Your task to perform on an android device: turn on location history Image 0: 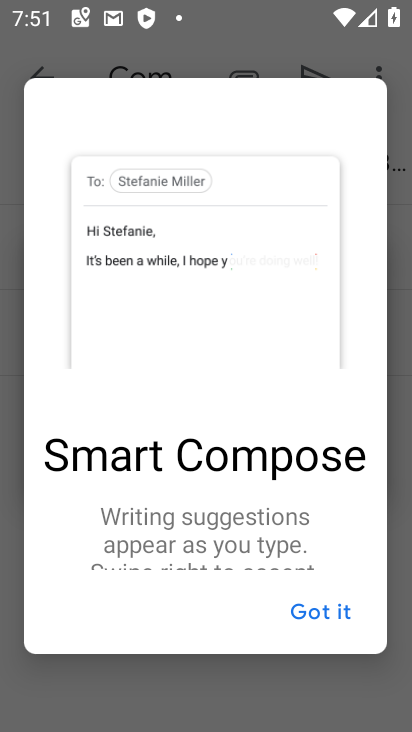
Step 0: press home button
Your task to perform on an android device: turn on location history Image 1: 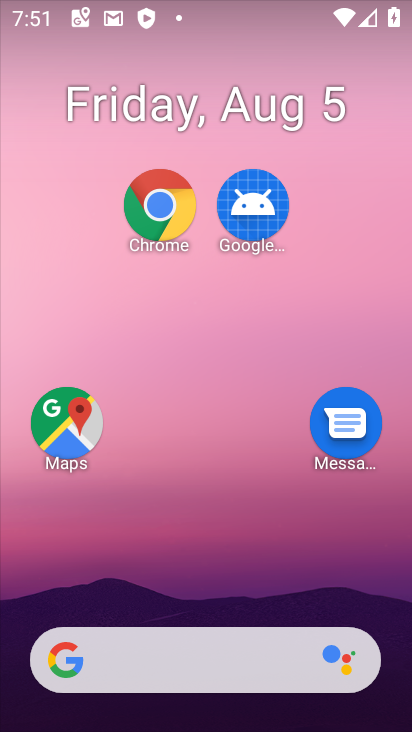
Step 1: drag from (263, 543) to (93, 6)
Your task to perform on an android device: turn on location history Image 2: 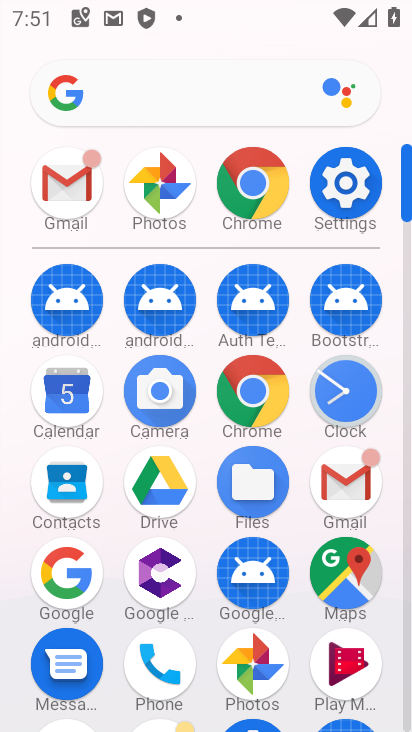
Step 2: click (328, 190)
Your task to perform on an android device: turn on location history Image 3: 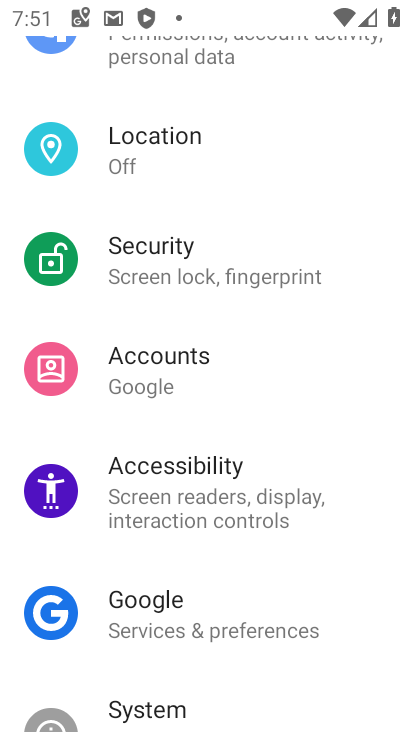
Step 3: click (107, 173)
Your task to perform on an android device: turn on location history Image 4: 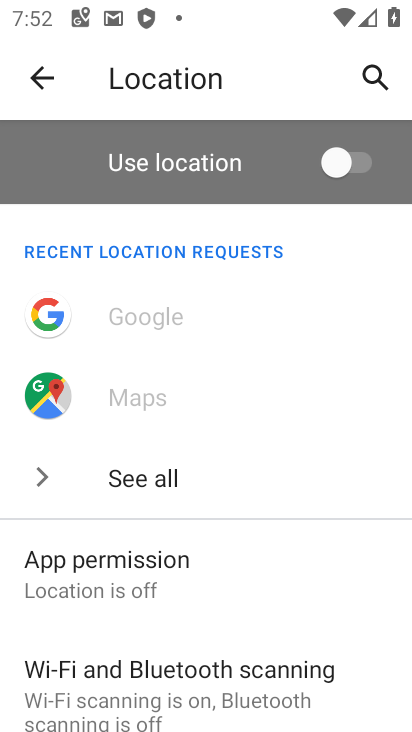
Step 4: drag from (119, 627) to (114, 189)
Your task to perform on an android device: turn on location history Image 5: 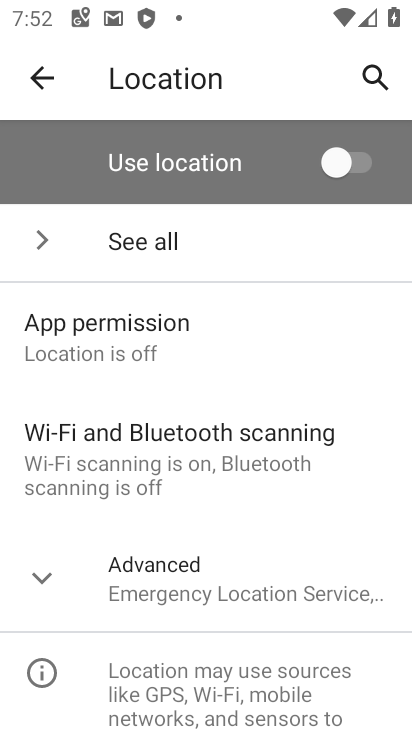
Step 5: click (27, 551)
Your task to perform on an android device: turn on location history Image 6: 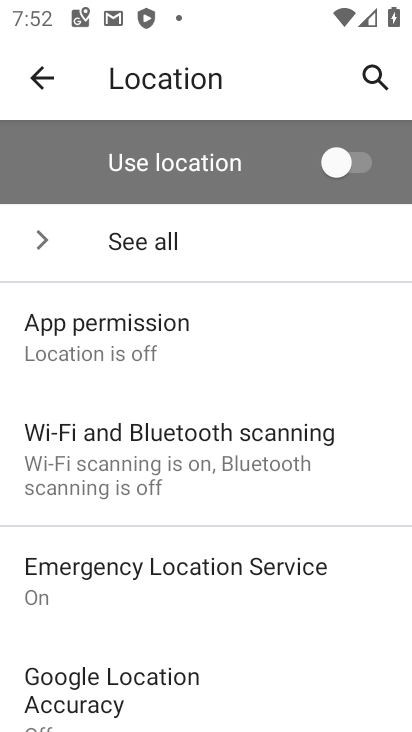
Step 6: drag from (309, 557) to (245, 12)
Your task to perform on an android device: turn on location history Image 7: 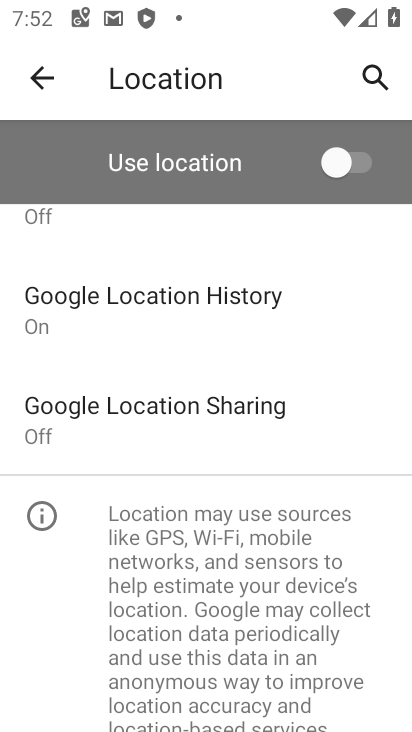
Step 7: click (193, 276)
Your task to perform on an android device: turn on location history Image 8: 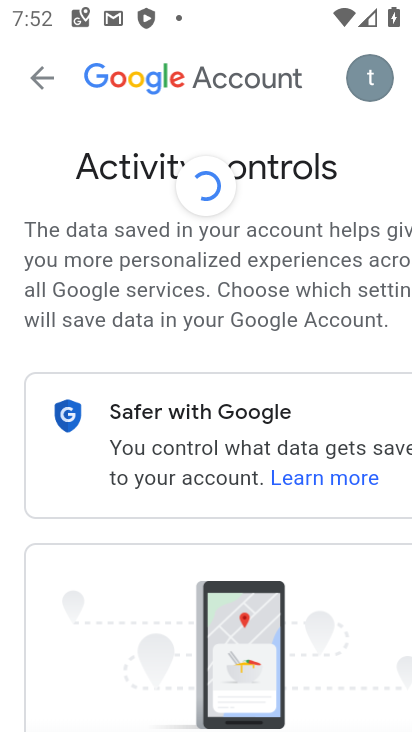
Step 8: task complete